Your task to perform on an android device: Go to wifi settings Image 0: 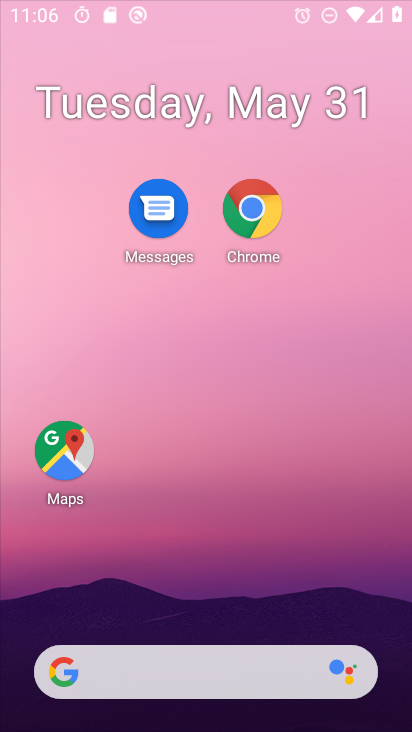
Step 0: press home button
Your task to perform on an android device: Go to wifi settings Image 1: 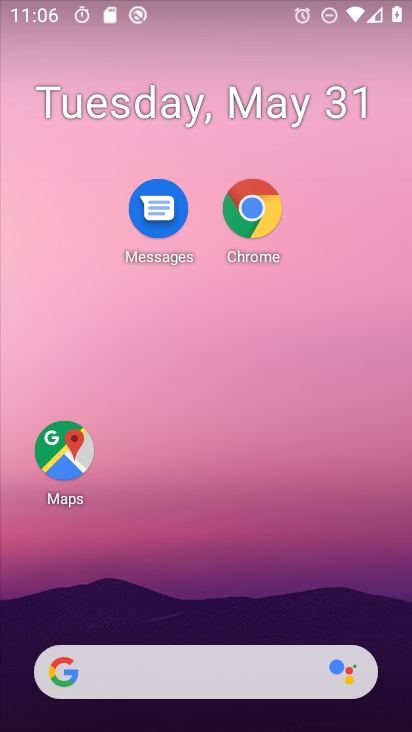
Step 1: drag from (205, 629) to (190, 32)
Your task to perform on an android device: Go to wifi settings Image 2: 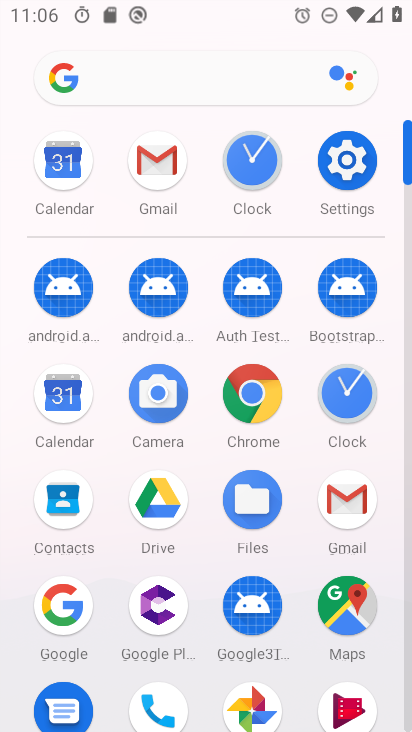
Step 2: click (343, 150)
Your task to perform on an android device: Go to wifi settings Image 3: 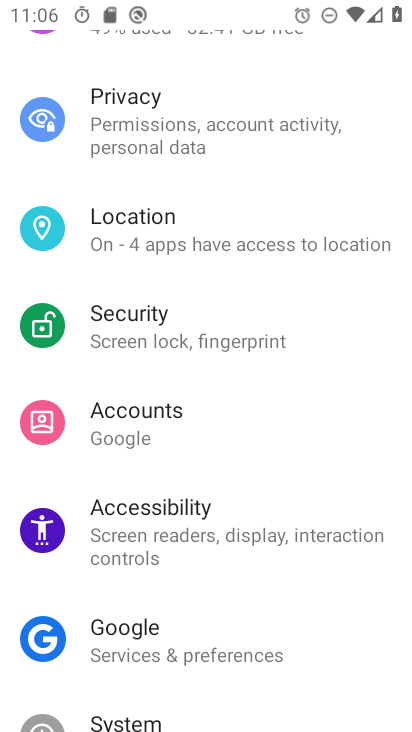
Step 3: drag from (207, 104) to (201, 684)
Your task to perform on an android device: Go to wifi settings Image 4: 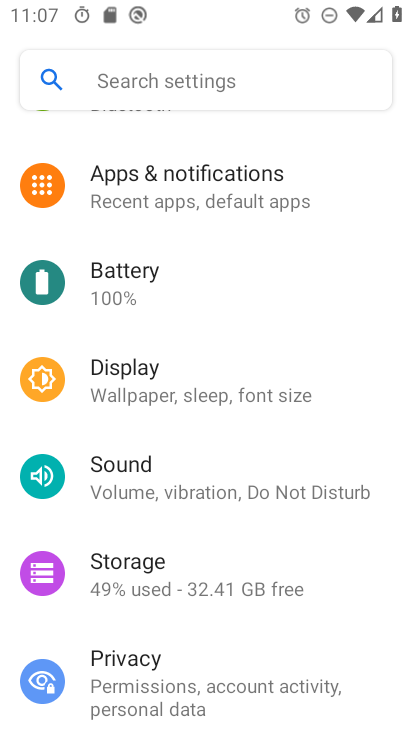
Step 4: drag from (226, 163) to (214, 651)
Your task to perform on an android device: Go to wifi settings Image 5: 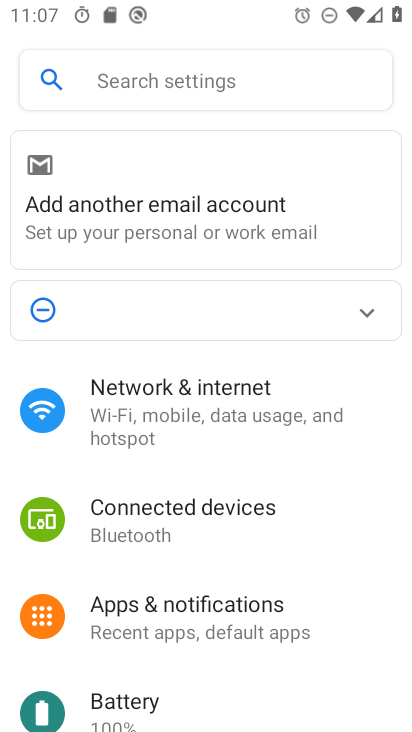
Step 5: click (224, 397)
Your task to perform on an android device: Go to wifi settings Image 6: 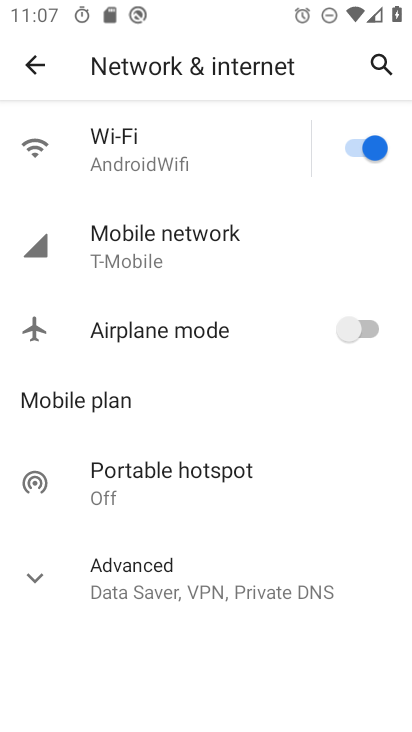
Step 6: click (214, 134)
Your task to perform on an android device: Go to wifi settings Image 7: 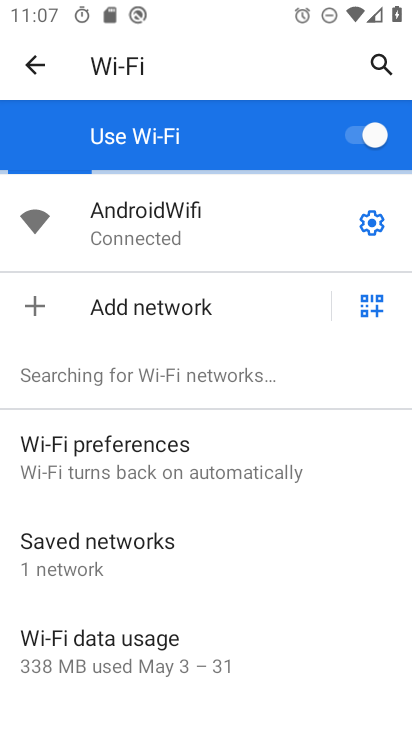
Step 7: task complete